Your task to perform on an android device: Add "razer deathadder" to the cart on amazon, then select checkout. Image 0: 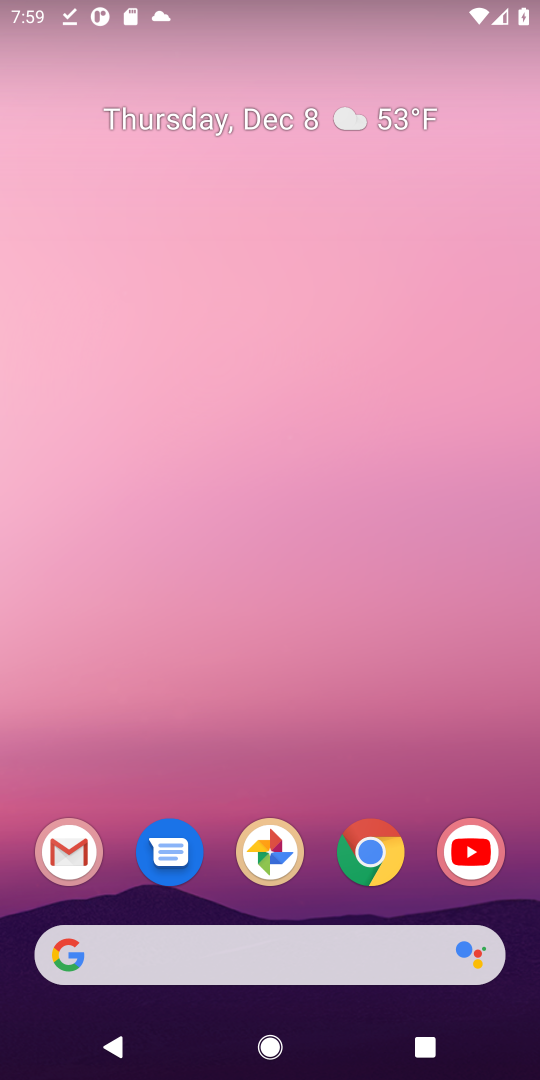
Step 0: click (301, 949)
Your task to perform on an android device: Add "razer deathadder" to the cart on amazon, then select checkout. Image 1: 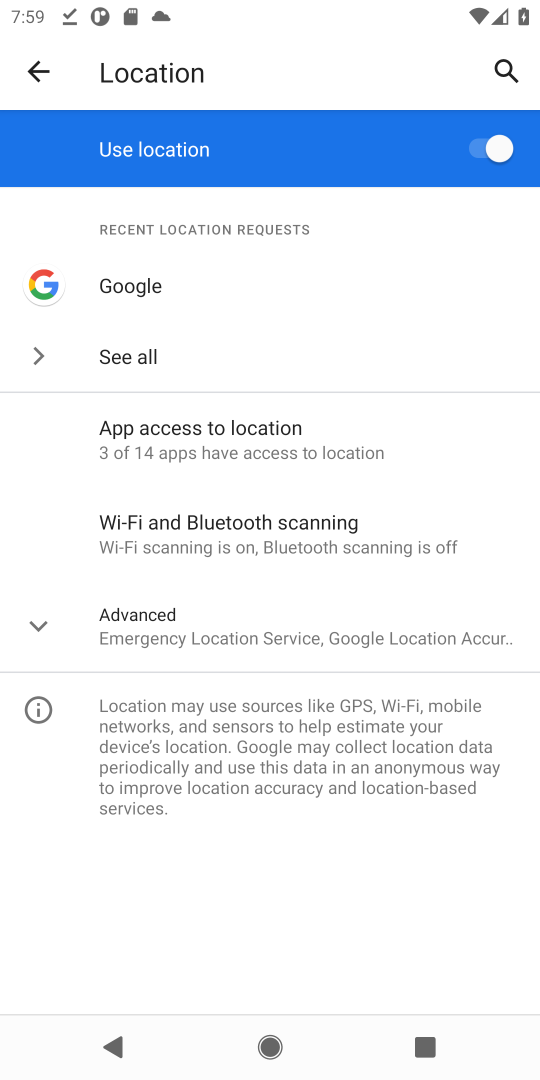
Step 1: type "newegg"
Your task to perform on an android device: Add "razer deathadder" to the cart on amazon, then select checkout. Image 2: 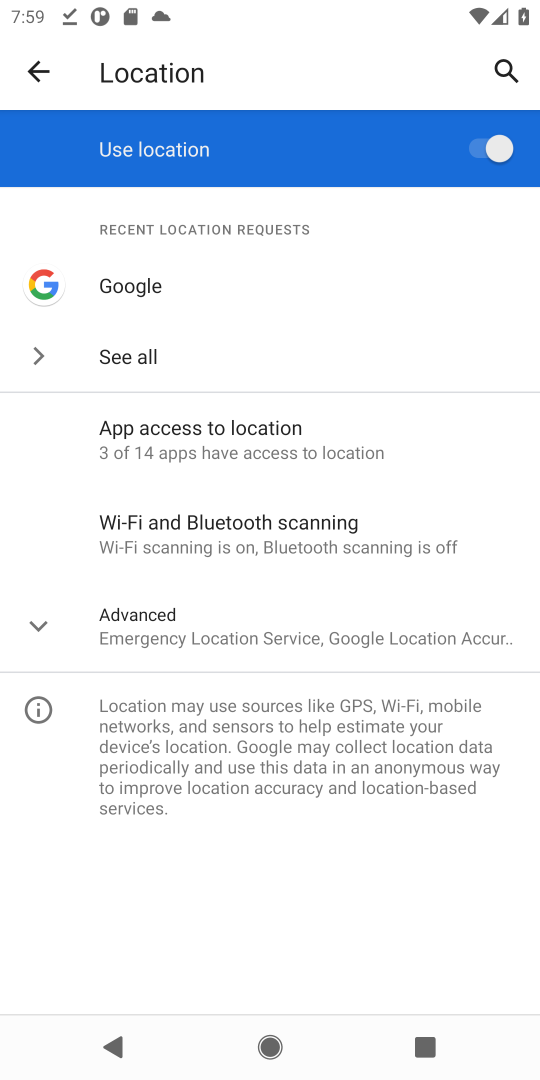
Step 2: press home button
Your task to perform on an android device: Add "razer deathadder" to the cart on amazon, then select checkout. Image 3: 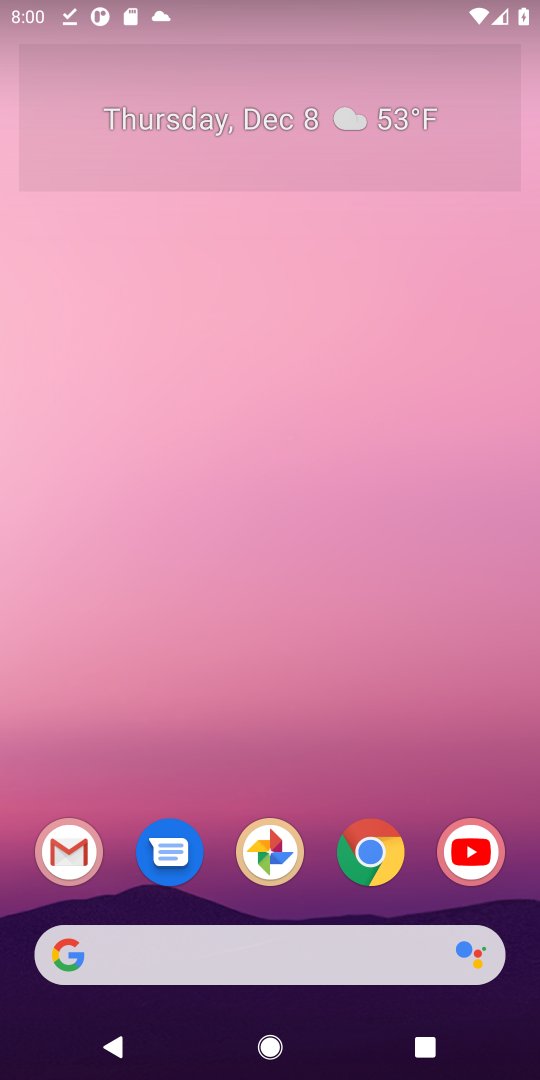
Step 3: click (231, 953)
Your task to perform on an android device: Add "razer deathadder" to the cart on amazon, then select checkout. Image 4: 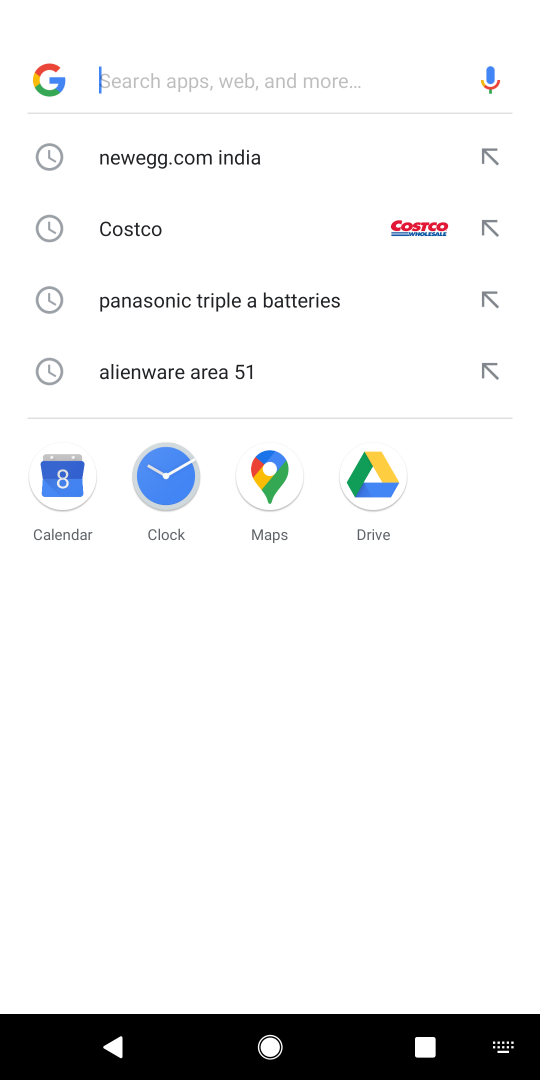
Step 4: type "razer deathadder"
Your task to perform on an android device: Add "razer deathadder" to the cart on amazon, then select checkout. Image 5: 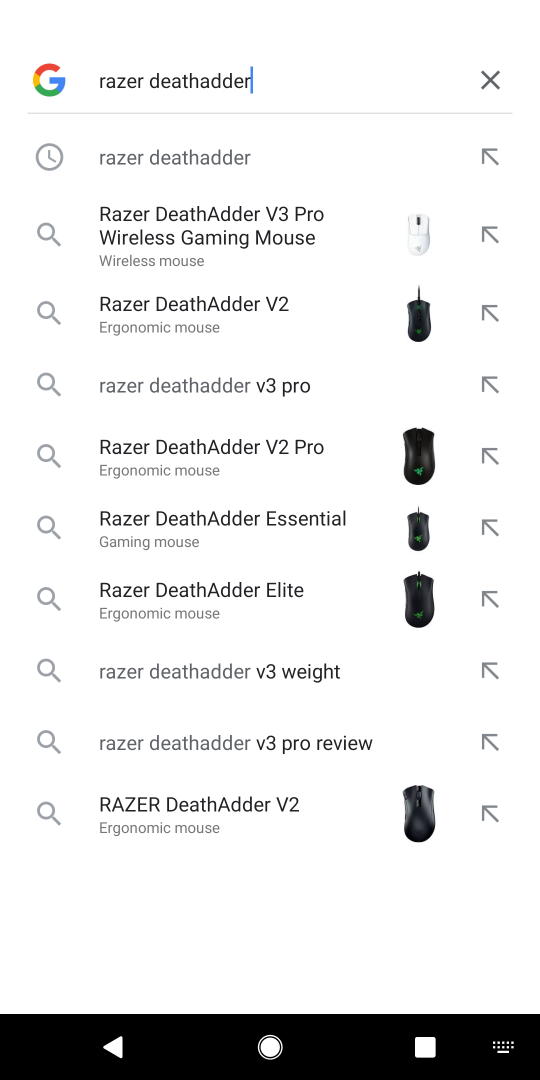
Step 5: click (165, 156)
Your task to perform on an android device: Add "razer deathadder" to the cart on amazon, then select checkout. Image 6: 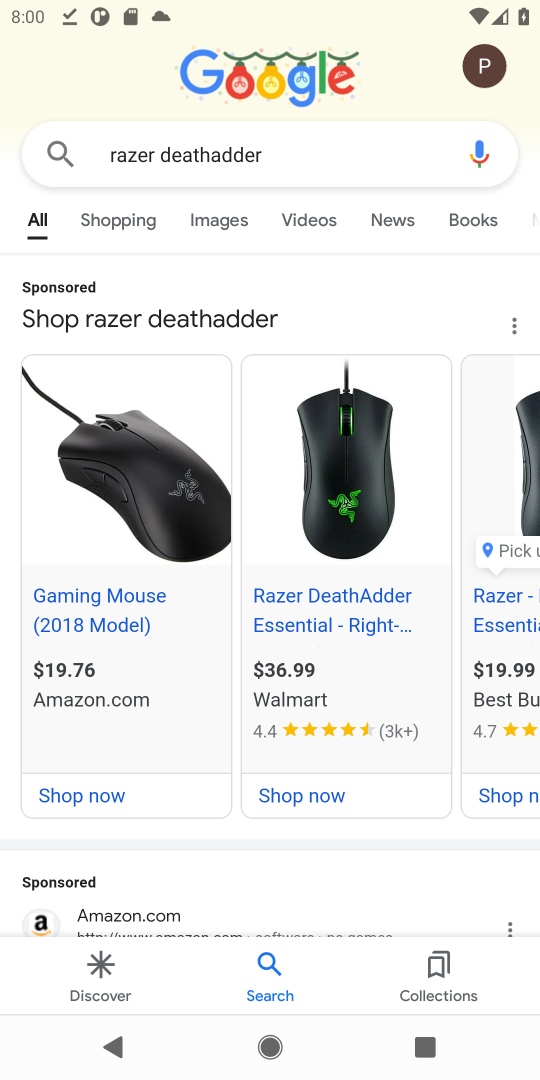
Step 6: click (153, 604)
Your task to perform on an android device: Add "razer deathadder" to the cart on amazon, then select checkout. Image 7: 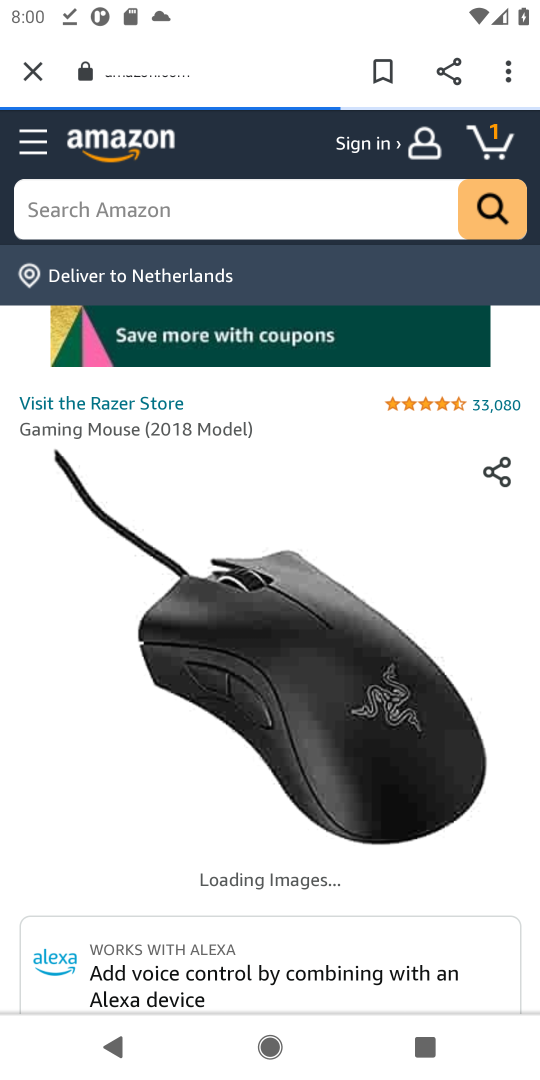
Step 7: task complete